Your task to perform on an android device: see creations saved in the google photos Image 0: 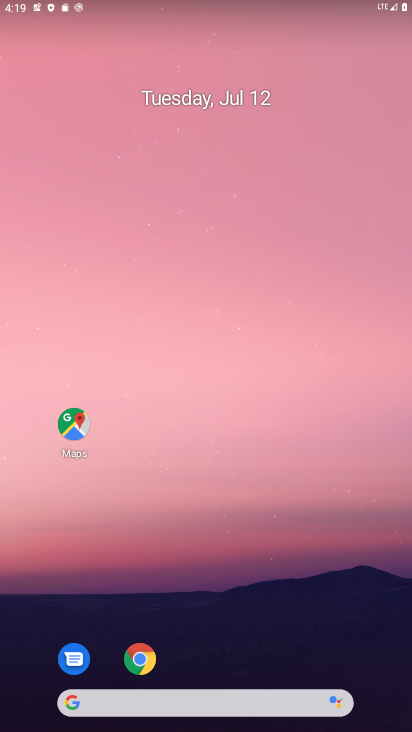
Step 0: click (201, 720)
Your task to perform on an android device: see creations saved in the google photos Image 1: 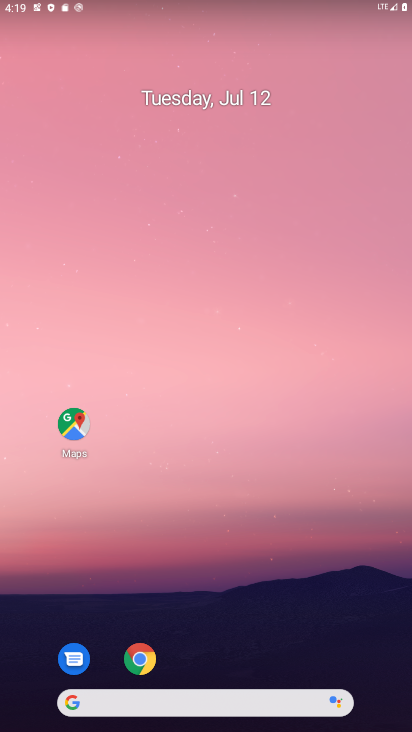
Step 1: drag from (186, 316) to (186, 222)
Your task to perform on an android device: see creations saved in the google photos Image 2: 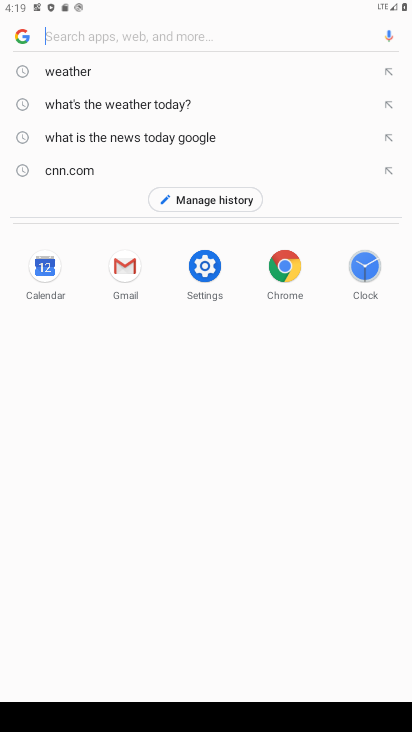
Step 2: press home button
Your task to perform on an android device: see creations saved in the google photos Image 3: 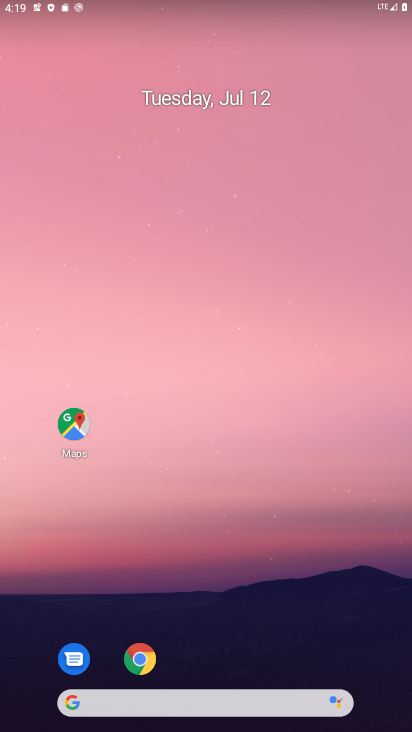
Step 3: drag from (213, 728) to (219, 254)
Your task to perform on an android device: see creations saved in the google photos Image 4: 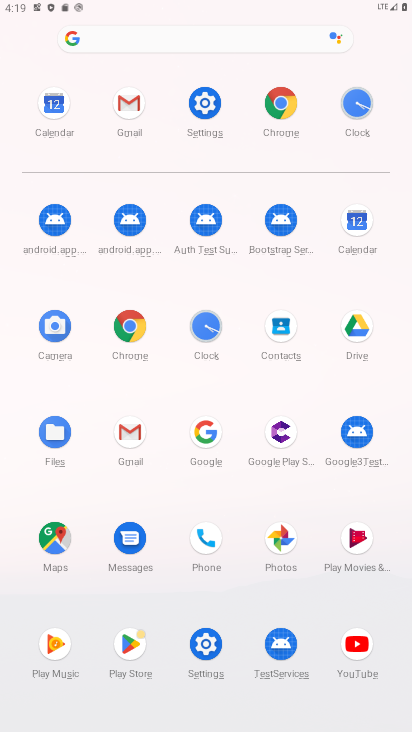
Step 4: click (280, 535)
Your task to perform on an android device: see creations saved in the google photos Image 5: 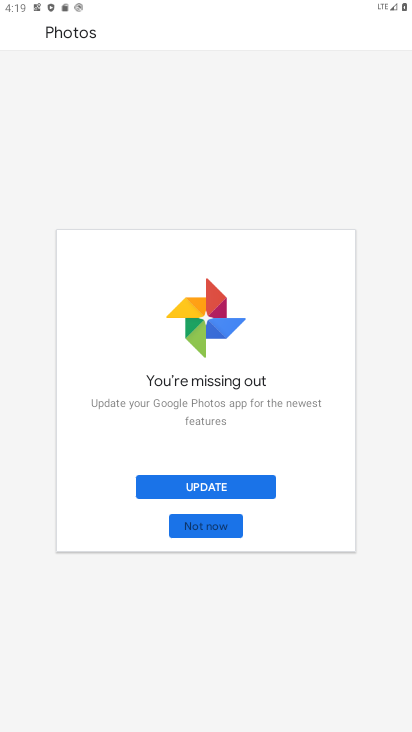
Step 5: task complete